Your task to perform on an android device: Open eBay Image 0: 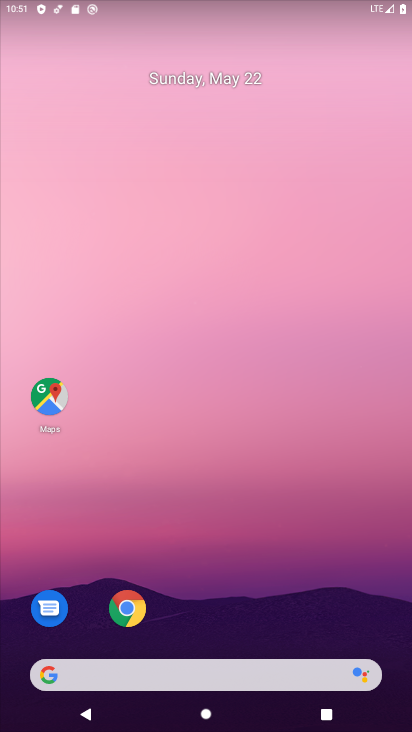
Step 0: click (129, 610)
Your task to perform on an android device: Open eBay Image 1: 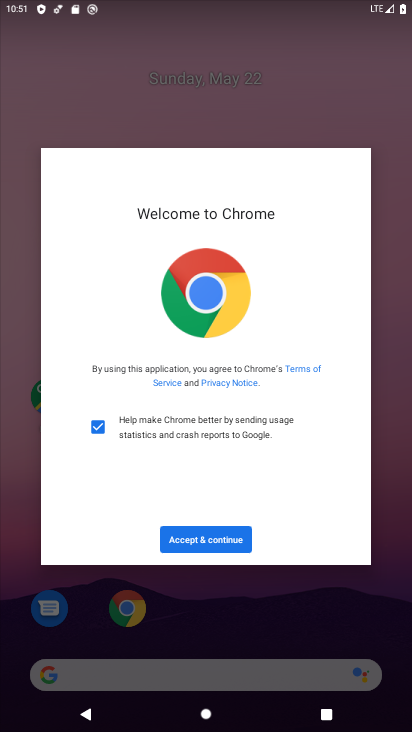
Step 1: click (183, 538)
Your task to perform on an android device: Open eBay Image 2: 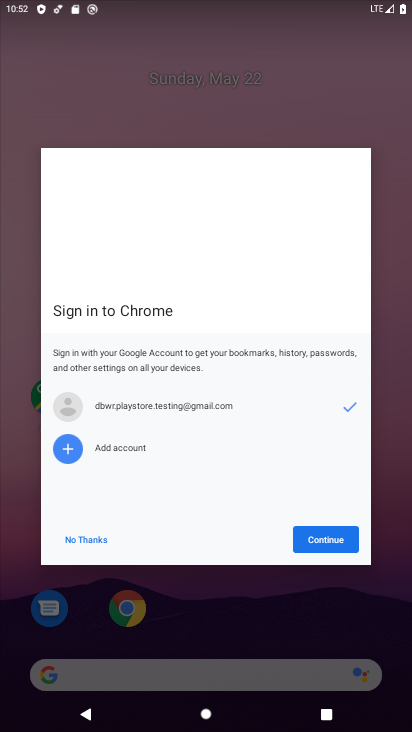
Step 2: click (314, 542)
Your task to perform on an android device: Open eBay Image 3: 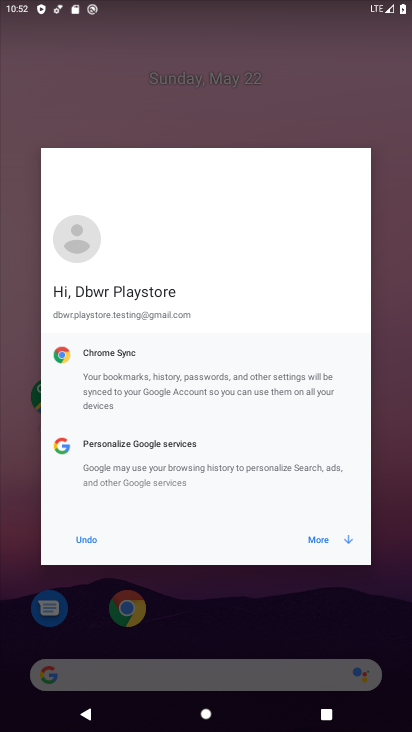
Step 3: click (314, 536)
Your task to perform on an android device: Open eBay Image 4: 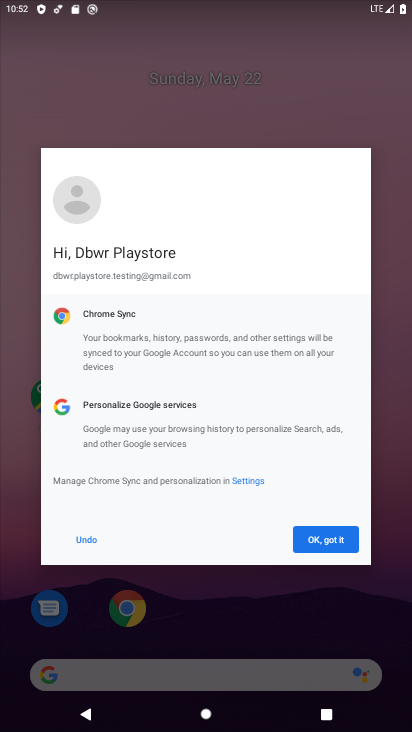
Step 4: click (314, 536)
Your task to perform on an android device: Open eBay Image 5: 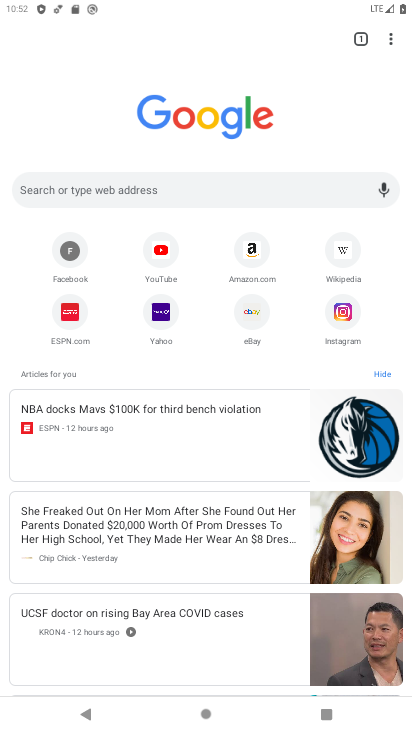
Step 5: click (247, 313)
Your task to perform on an android device: Open eBay Image 6: 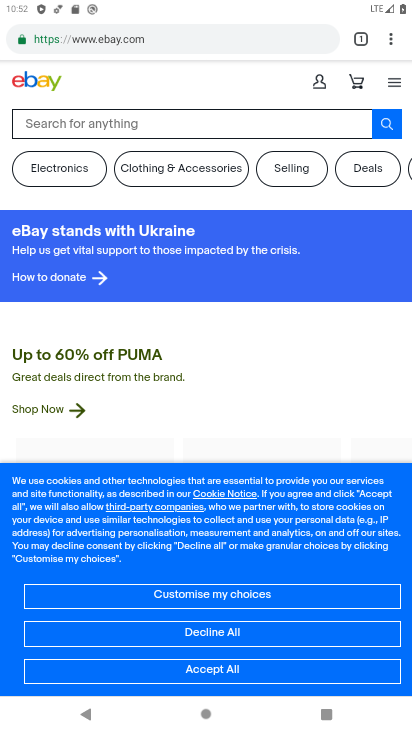
Step 6: task complete